Your task to perform on an android device: delete browsing data in the chrome app Image 0: 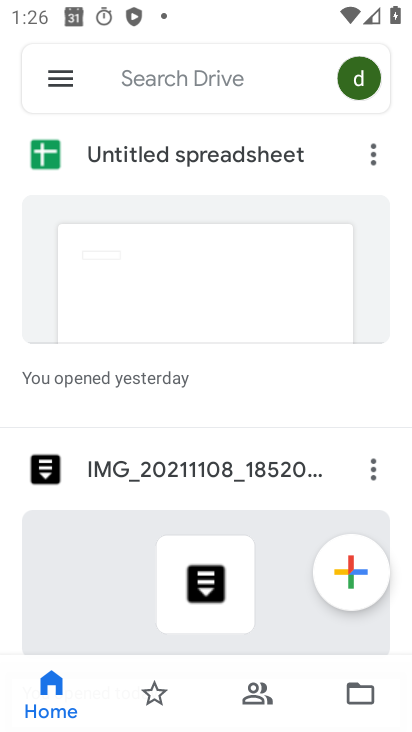
Step 0: press home button
Your task to perform on an android device: delete browsing data in the chrome app Image 1: 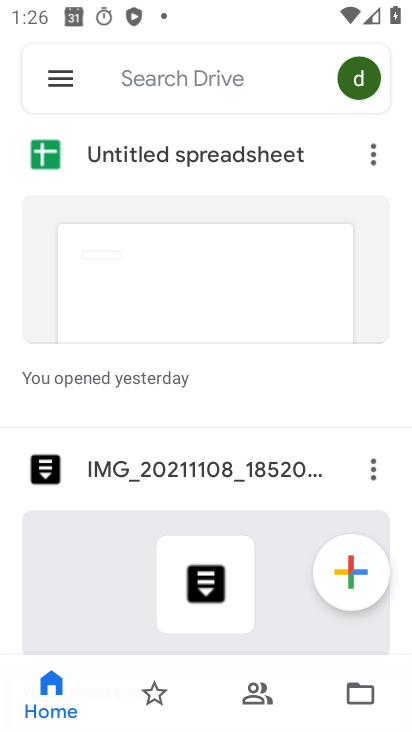
Step 1: press home button
Your task to perform on an android device: delete browsing data in the chrome app Image 2: 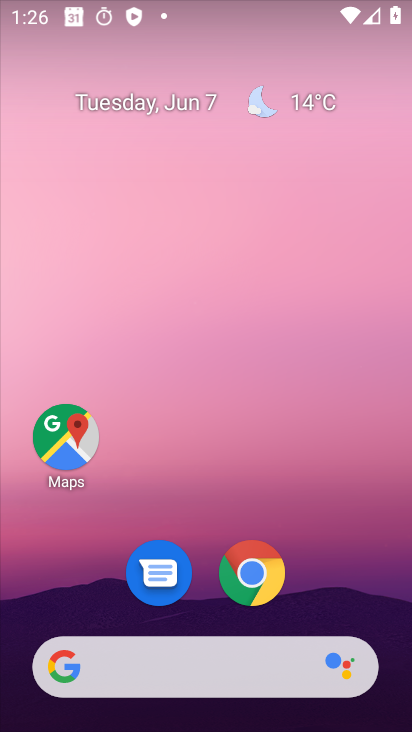
Step 2: click (249, 565)
Your task to perform on an android device: delete browsing data in the chrome app Image 3: 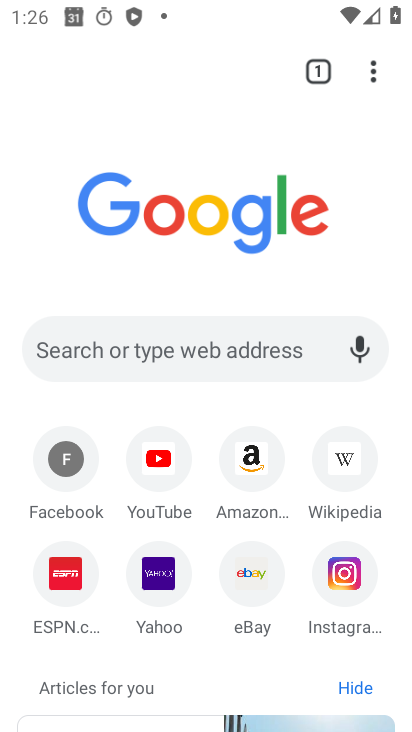
Step 3: click (376, 65)
Your task to perform on an android device: delete browsing data in the chrome app Image 4: 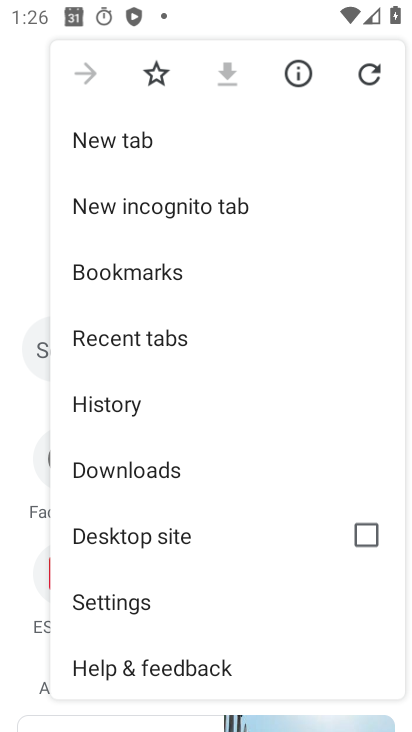
Step 4: click (159, 402)
Your task to perform on an android device: delete browsing data in the chrome app Image 5: 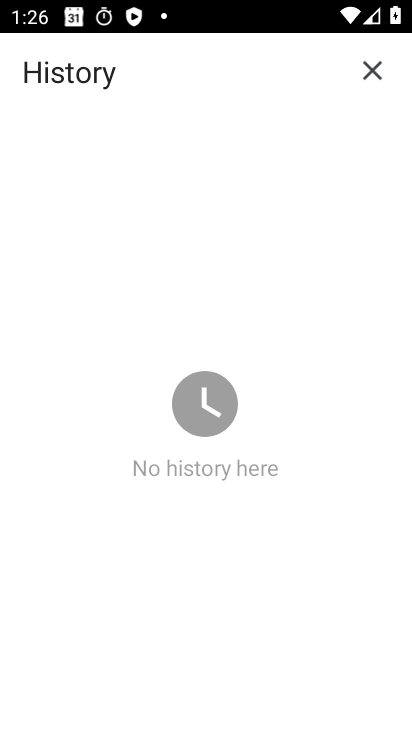
Step 5: task complete